Your task to perform on an android device: When is my next appointment? Image 0: 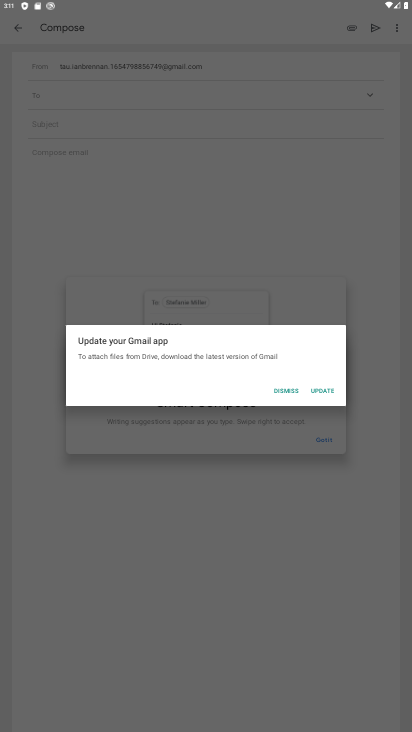
Step 0: click (282, 388)
Your task to perform on an android device: When is my next appointment? Image 1: 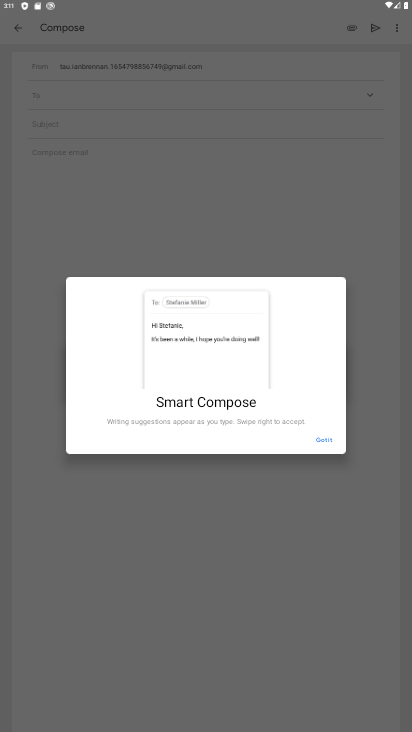
Step 1: click (327, 441)
Your task to perform on an android device: When is my next appointment? Image 2: 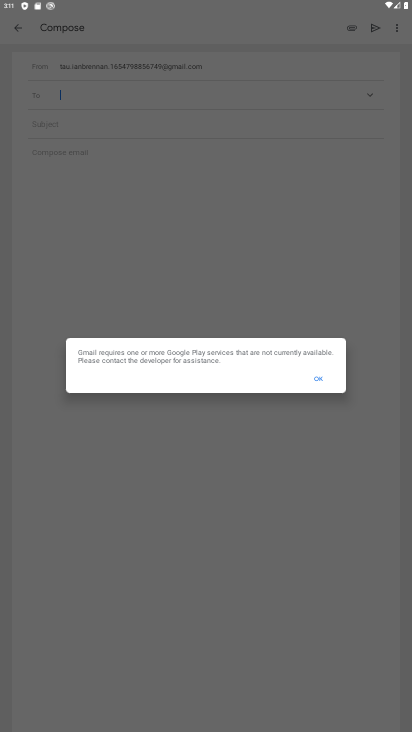
Step 2: task complete